Your task to perform on an android device: see tabs open on other devices in the chrome app Image 0: 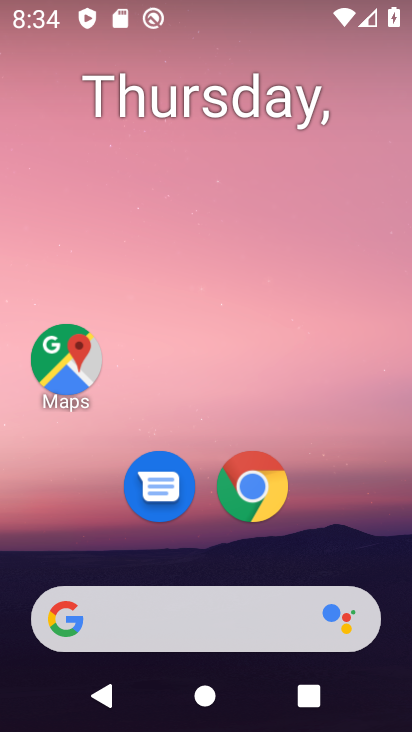
Step 0: click (258, 480)
Your task to perform on an android device: see tabs open on other devices in the chrome app Image 1: 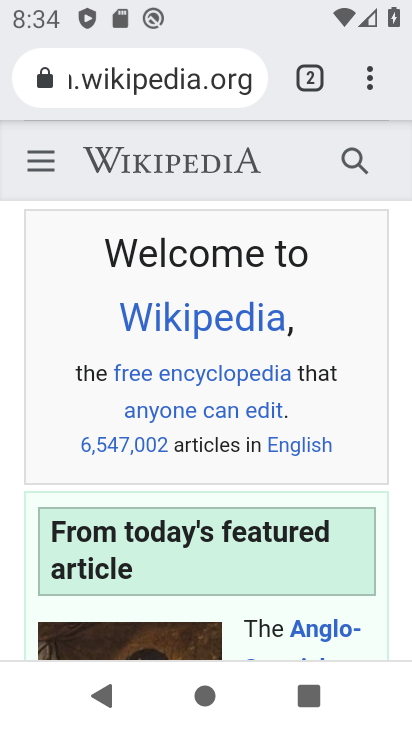
Step 1: task complete